Your task to perform on an android device: set default search engine in the chrome app Image 0: 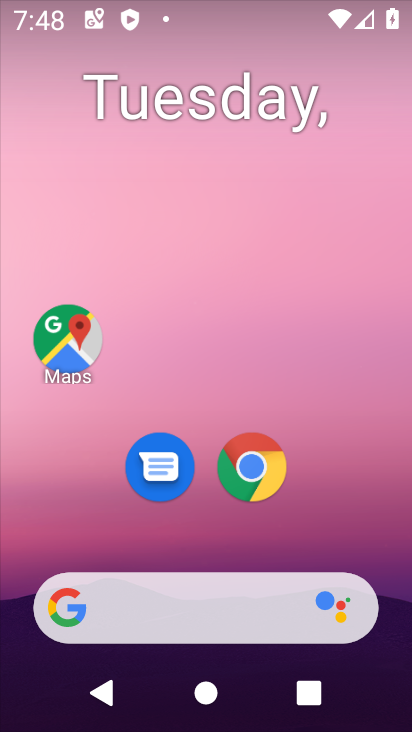
Step 0: click (268, 470)
Your task to perform on an android device: set default search engine in the chrome app Image 1: 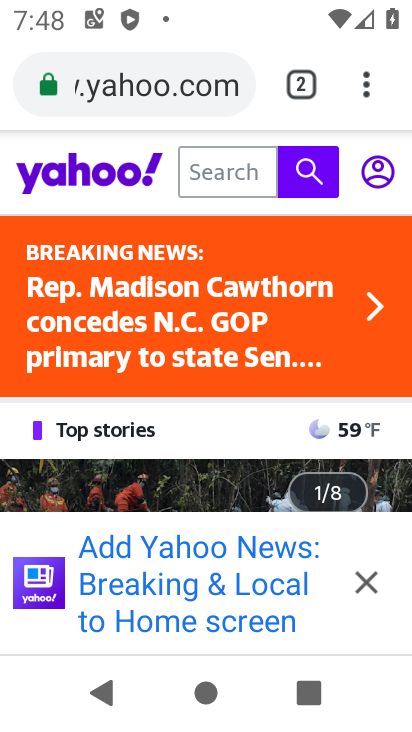
Step 1: click (371, 578)
Your task to perform on an android device: set default search engine in the chrome app Image 2: 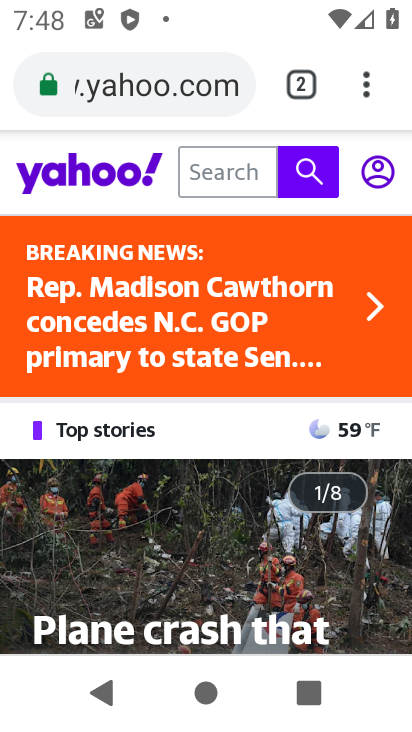
Step 2: click (380, 83)
Your task to perform on an android device: set default search engine in the chrome app Image 3: 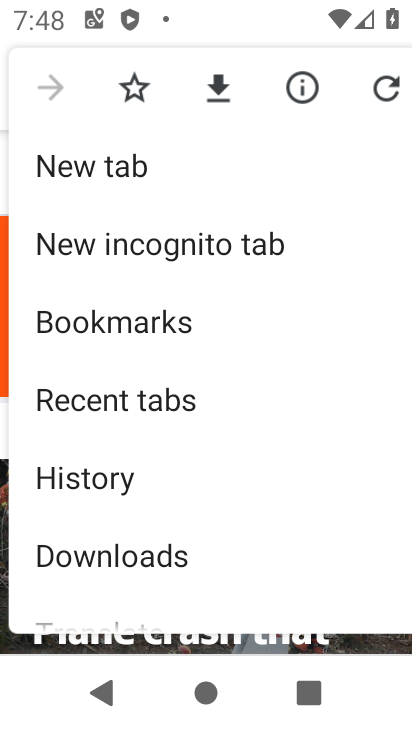
Step 3: drag from (250, 582) to (235, 113)
Your task to perform on an android device: set default search engine in the chrome app Image 4: 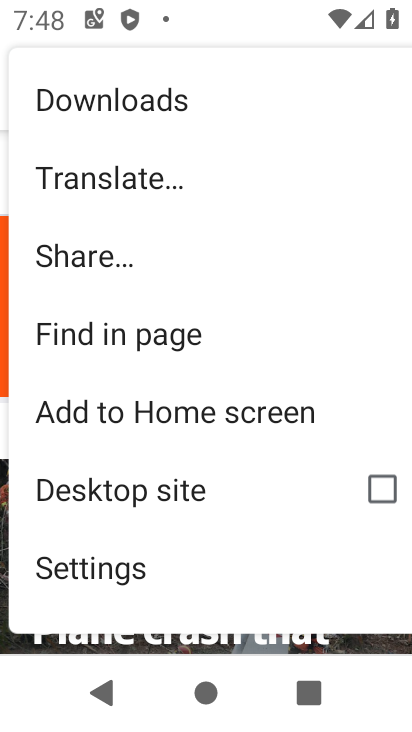
Step 4: click (136, 581)
Your task to perform on an android device: set default search engine in the chrome app Image 5: 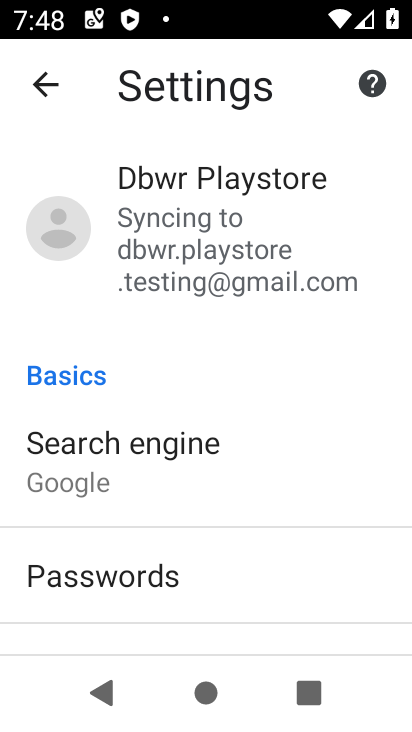
Step 5: click (151, 497)
Your task to perform on an android device: set default search engine in the chrome app Image 6: 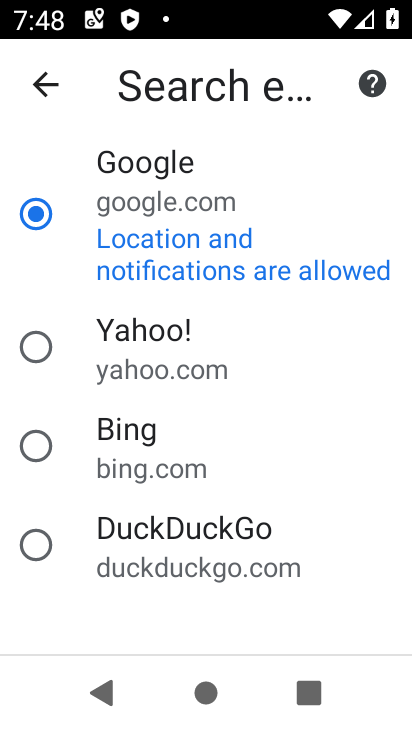
Step 6: task complete